Your task to perform on an android device: Open Youtube and go to the subscriptions tab Image 0: 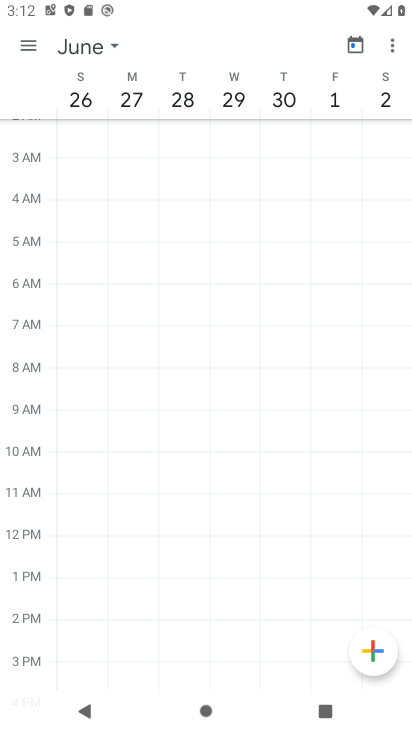
Step 0: press home button
Your task to perform on an android device: Open Youtube and go to the subscriptions tab Image 1: 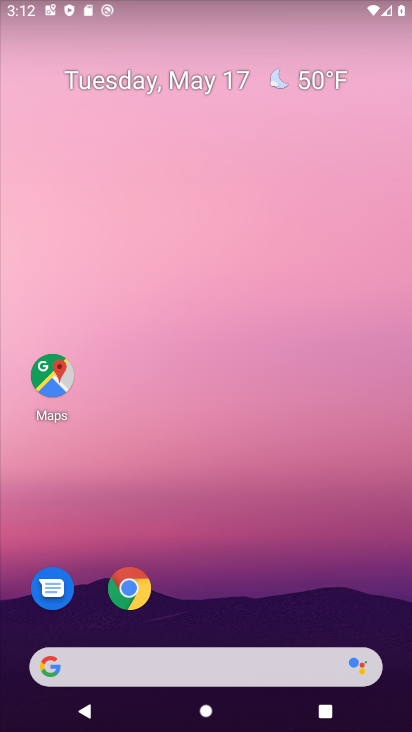
Step 1: drag from (222, 626) to (308, 146)
Your task to perform on an android device: Open Youtube and go to the subscriptions tab Image 2: 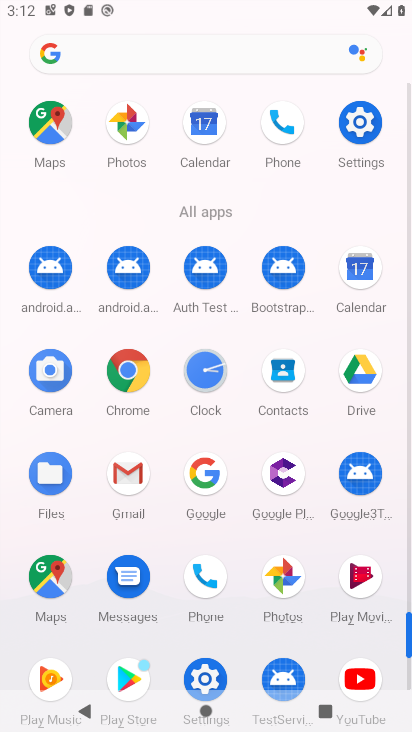
Step 2: drag from (258, 600) to (310, 404)
Your task to perform on an android device: Open Youtube and go to the subscriptions tab Image 3: 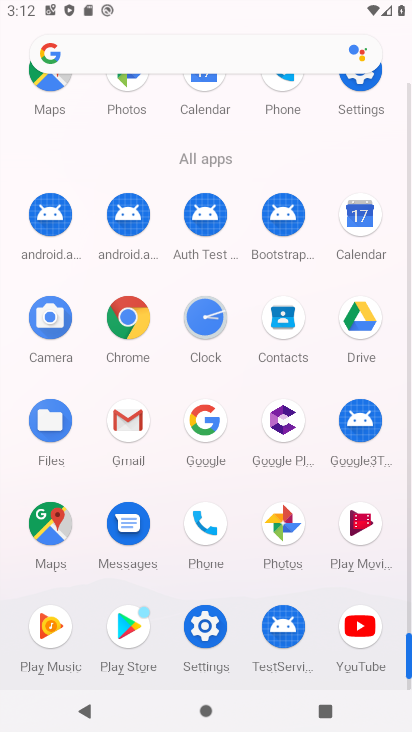
Step 3: click (367, 626)
Your task to perform on an android device: Open Youtube and go to the subscriptions tab Image 4: 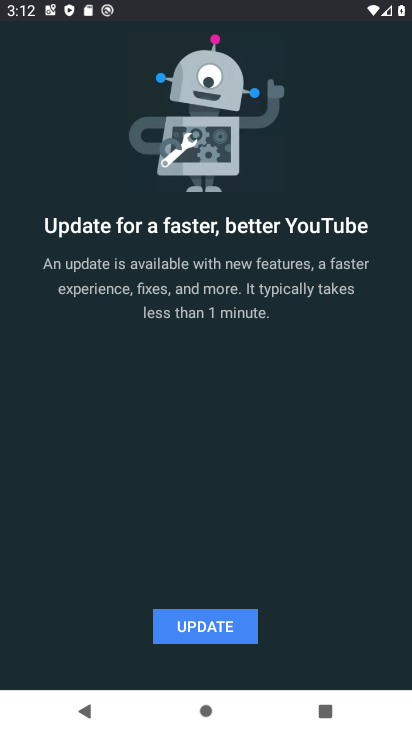
Step 4: click (224, 633)
Your task to perform on an android device: Open Youtube and go to the subscriptions tab Image 5: 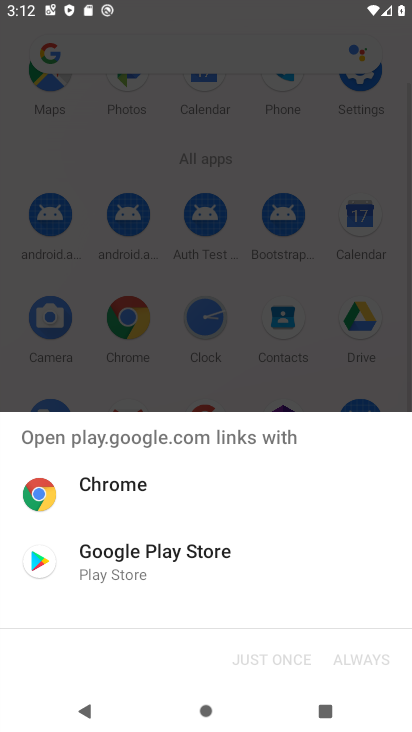
Step 5: click (240, 563)
Your task to perform on an android device: Open Youtube and go to the subscriptions tab Image 6: 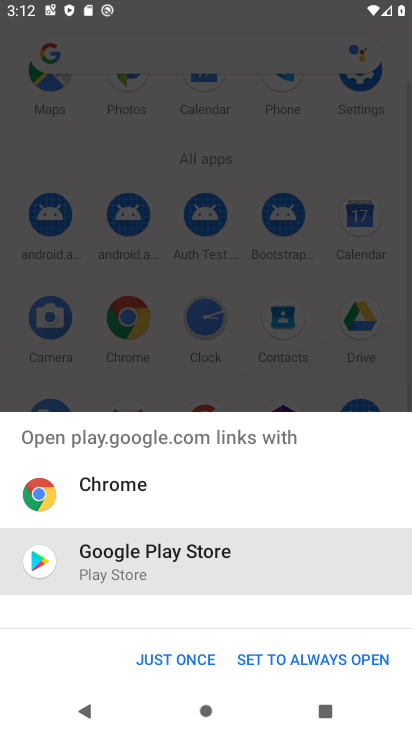
Step 6: click (209, 666)
Your task to perform on an android device: Open Youtube and go to the subscriptions tab Image 7: 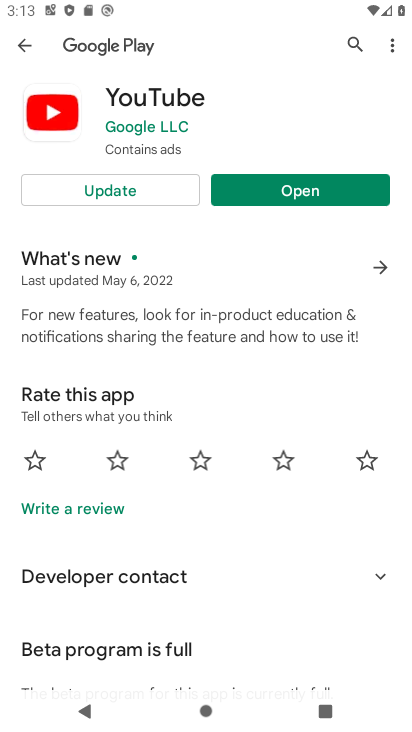
Step 7: click (152, 188)
Your task to perform on an android device: Open Youtube and go to the subscriptions tab Image 8: 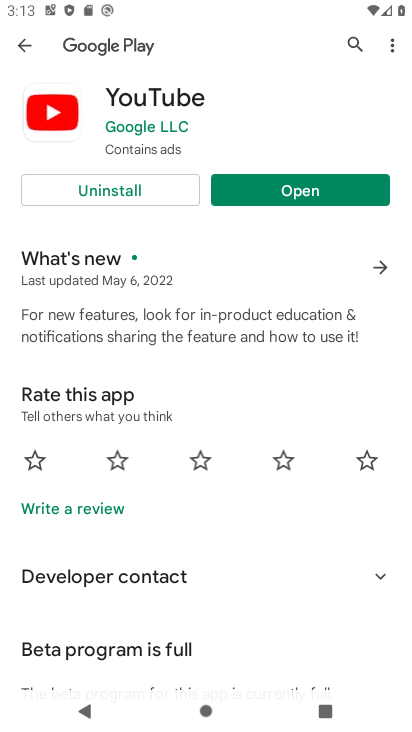
Step 8: click (306, 189)
Your task to perform on an android device: Open Youtube and go to the subscriptions tab Image 9: 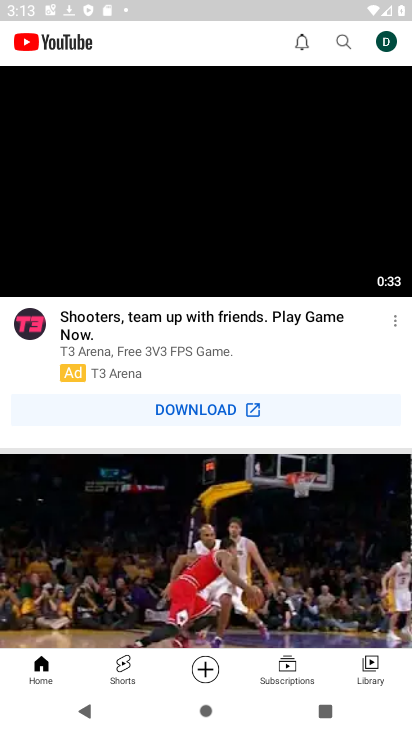
Step 9: click (301, 673)
Your task to perform on an android device: Open Youtube and go to the subscriptions tab Image 10: 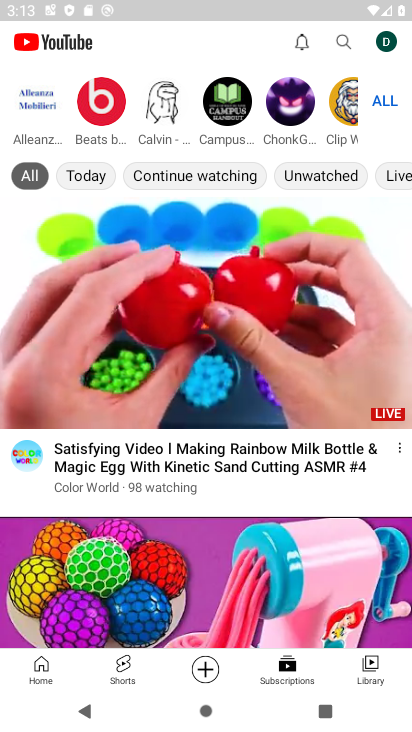
Step 10: task complete